Your task to perform on an android device: Open calendar and show me the first week of next month Image 0: 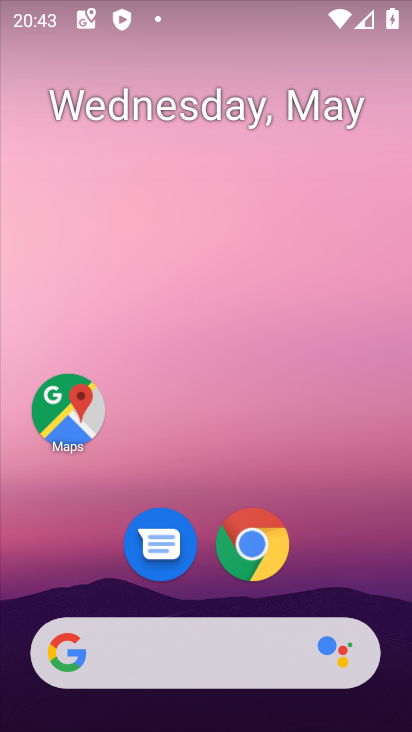
Step 0: click (235, 96)
Your task to perform on an android device: Open calendar and show me the first week of next month Image 1: 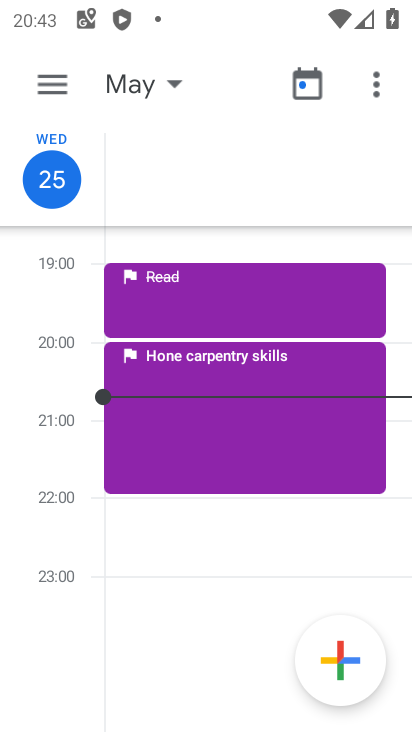
Step 1: click (165, 99)
Your task to perform on an android device: Open calendar and show me the first week of next month Image 2: 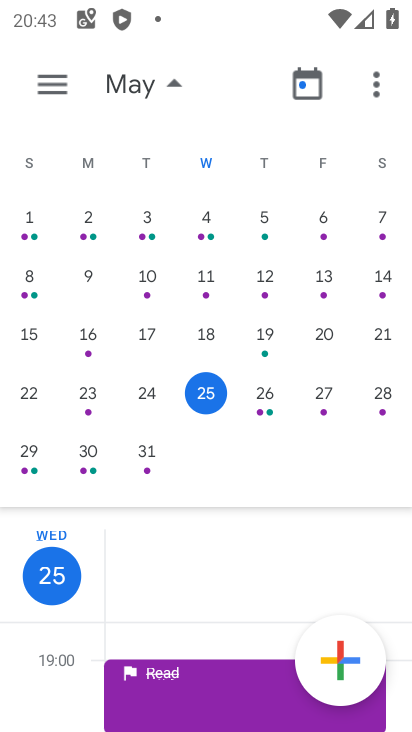
Step 2: drag from (371, 467) to (25, 428)
Your task to perform on an android device: Open calendar and show me the first week of next month Image 3: 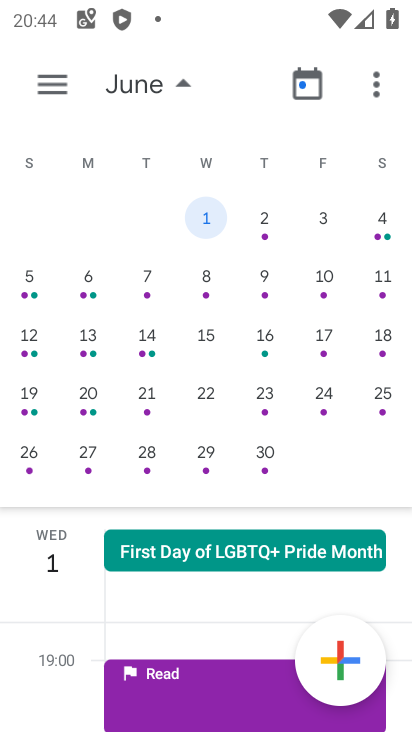
Step 3: click (259, 218)
Your task to perform on an android device: Open calendar and show me the first week of next month Image 4: 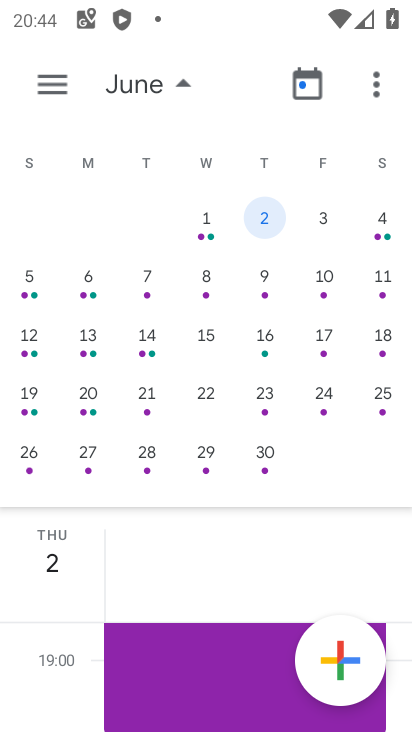
Step 4: task complete